Your task to perform on an android device: Open display settings Image 0: 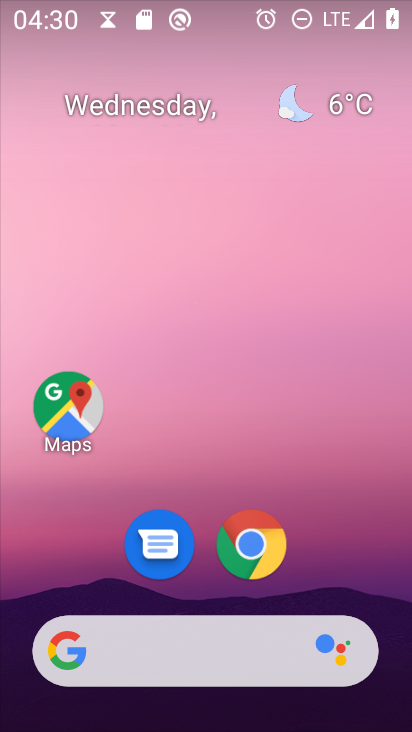
Step 0: drag from (337, 560) to (306, 299)
Your task to perform on an android device: Open display settings Image 1: 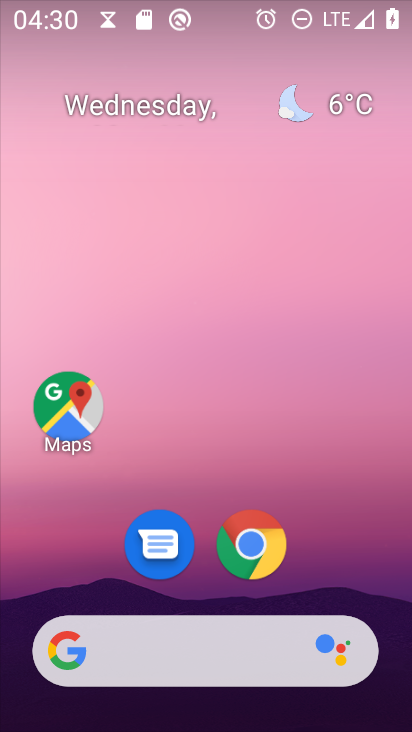
Step 1: drag from (307, 494) to (304, 168)
Your task to perform on an android device: Open display settings Image 2: 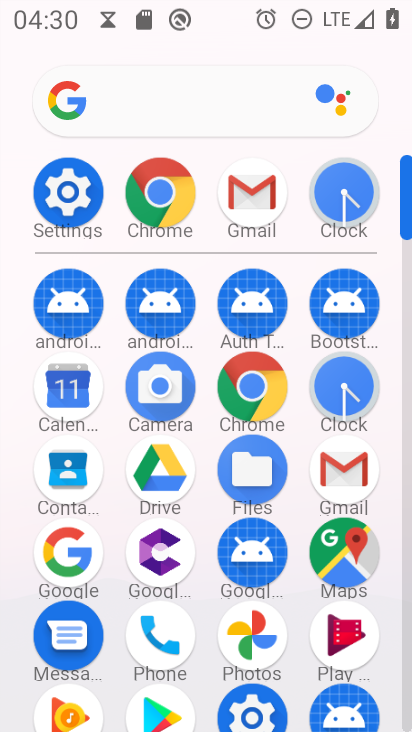
Step 2: click (59, 195)
Your task to perform on an android device: Open display settings Image 3: 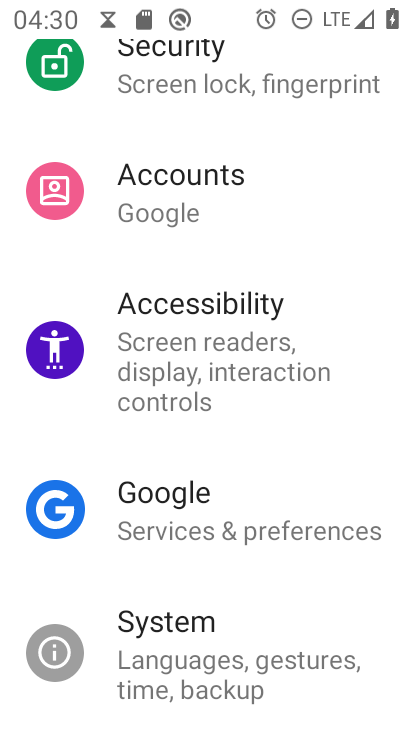
Step 3: drag from (200, 272) to (273, 567)
Your task to perform on an android device: Open display settings Image 4: 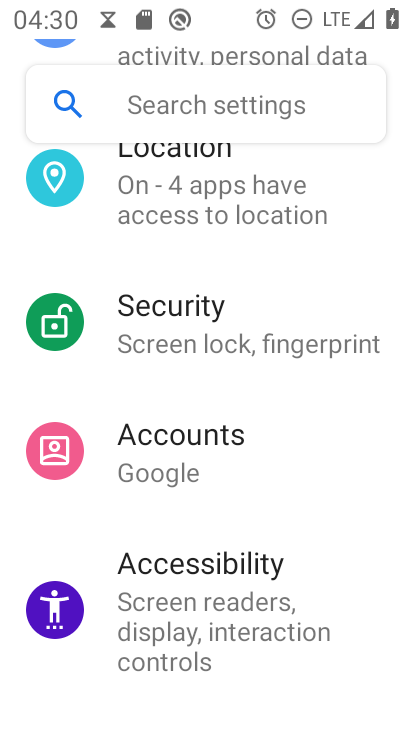
Step 4: drag from (283, 254) to (301, 549)
Your task to perform on an android device: Open display settings Image 5: 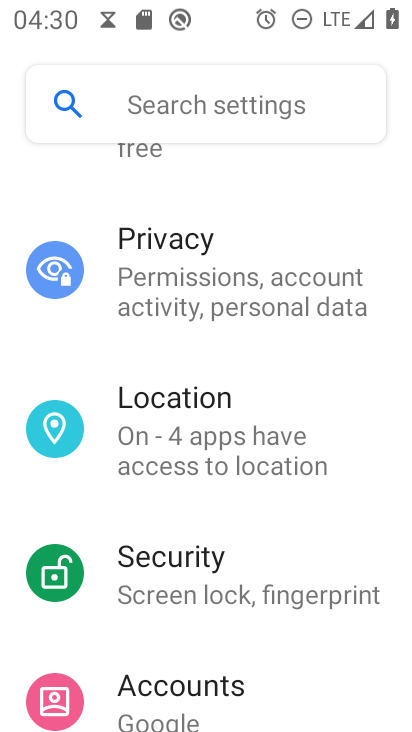
Step 5: drag from (289, 330) to (294, 600)
Your task to perform on an android device: Open display settings Image 6: 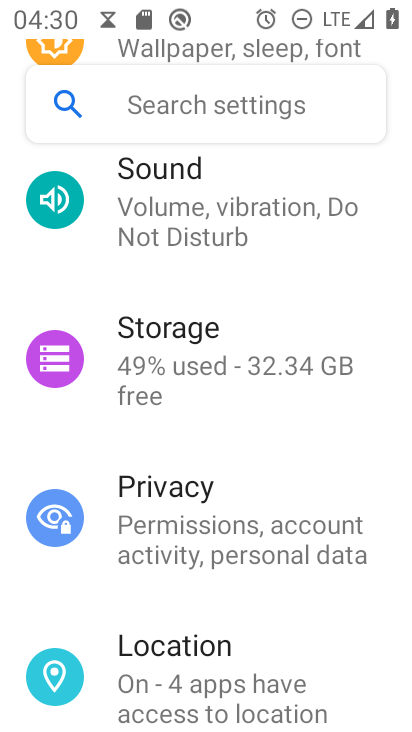
Step 6: drag from (271, 270) to (304, 656)
Your task to perform on an android device: Open display settings Image 7: 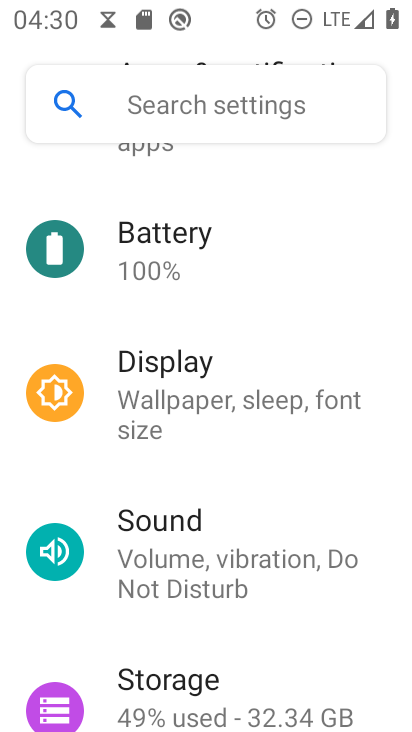
Step 7: drag from (260, 305) to (270, 581)
Your task to perform on an android device: Open display settings Image 8: 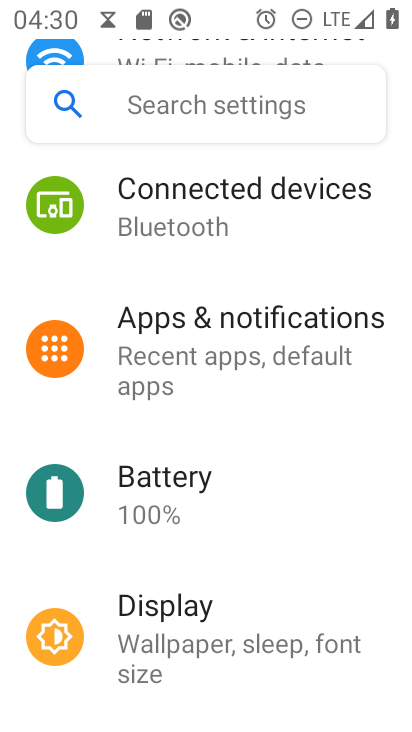
Step 8: click (180, 602)
Your task to perform on an android device: Open display settings Image 9: 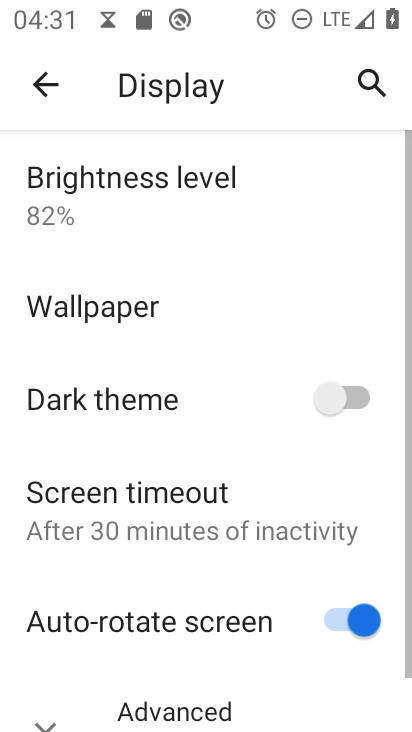
Step 9: task complete